Your task to perform on an android device: Is it going to rain this weekend? Image 0: 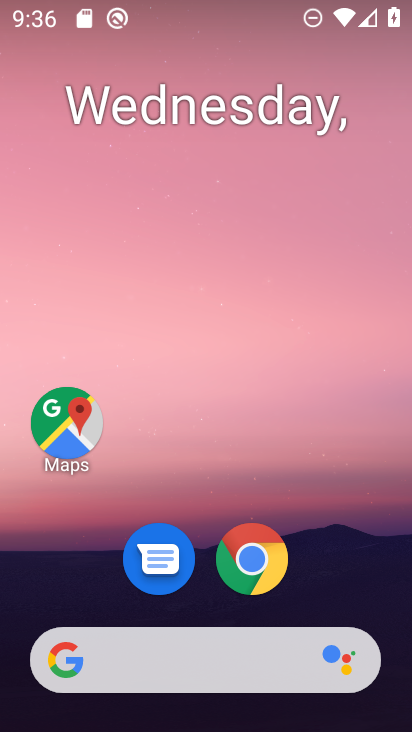
Step 0: click (230, 650)
Your task to perform on an android device: Is it going to rain this weekend? Image 1: 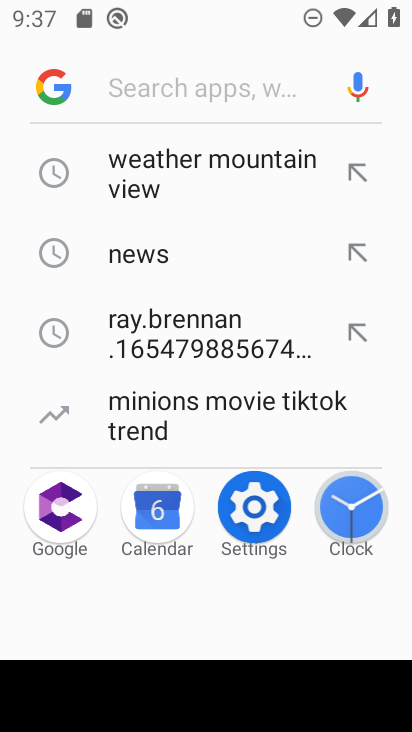
Step 1: type "weather "
Your task to perform on an android device: Is it going to rain this weekend? Image 2: 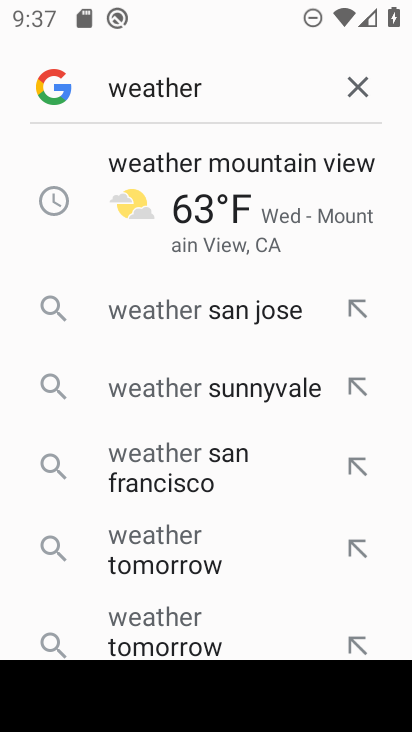
Step 2: drag from (280, 532) to (285, 308)
Your task to perform on an android device: Is it going to rain this weekend? Image 3: 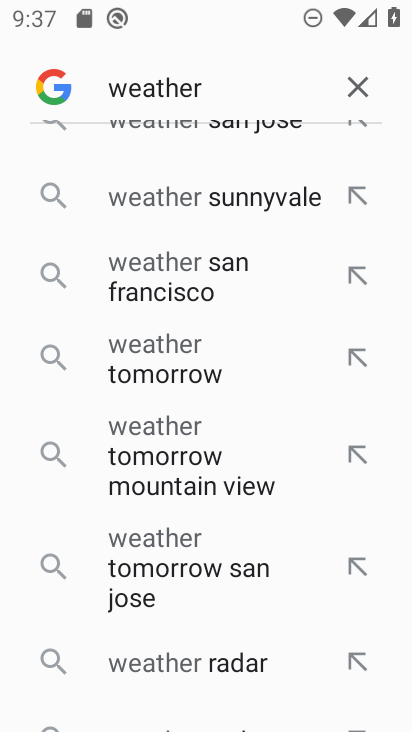
Step 3: drag from (253, 251) to (254, 491)
Your task to perform on an android device: Is it going to rain this weekend? Image 4: 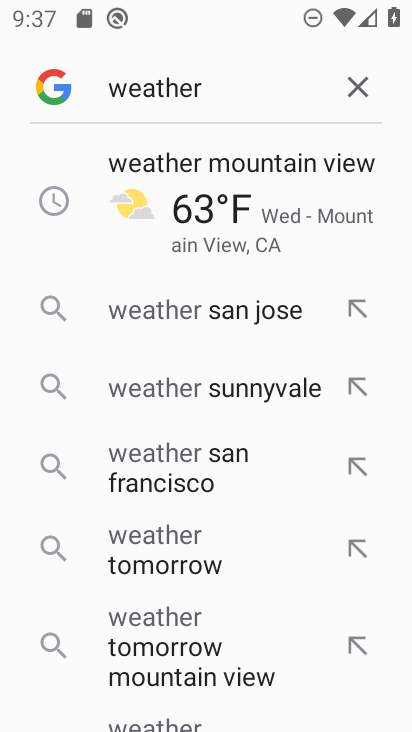
Step 4: click (184, 161)
Your task to perform on an android device: Is it going to rain this weekend? Image 5: 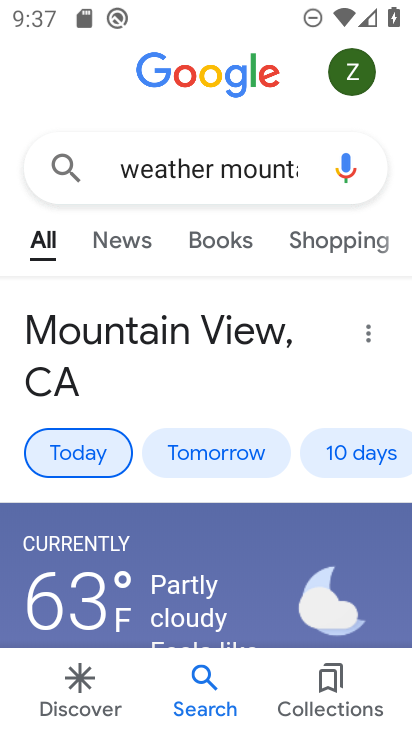
Step 5: click (342, 448)
Your task to perform on an android device: Is it going to rain this weekend? Image 6: 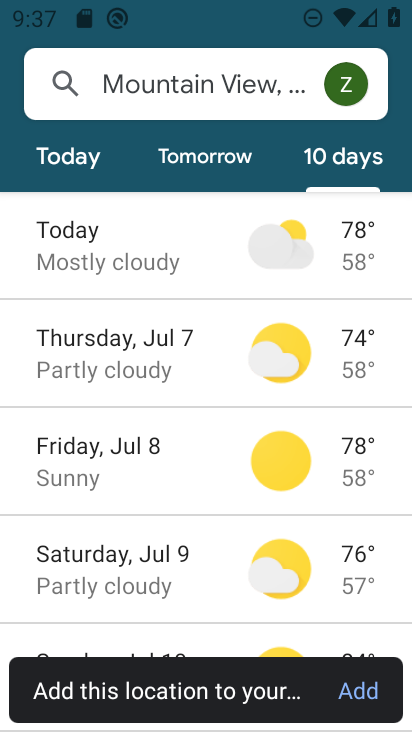
Step 6: drag from (275, 542) to (277, 319)
Your task to perform on an android device: Is it going to rain this weekend? Image 7: 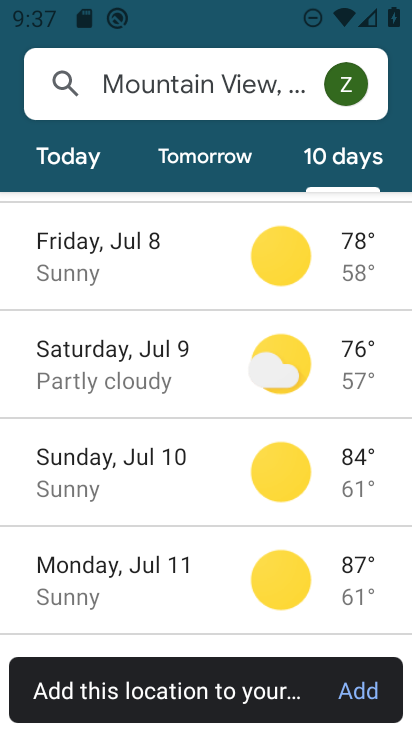
Step 7: click (185, 376)
Your task to perform on an android device: Is it going to rain this weekend? Image 8: 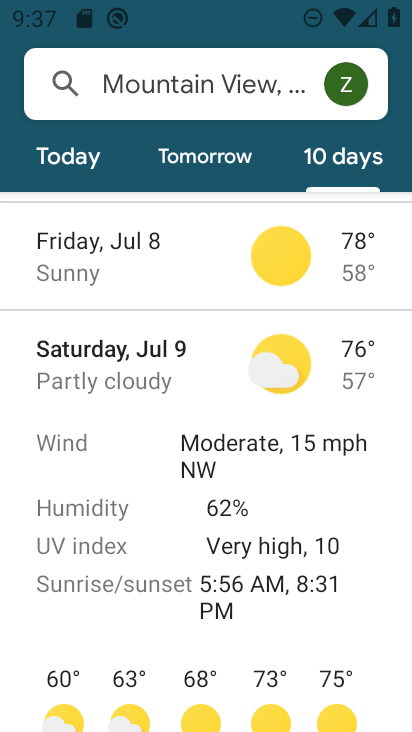
Step 8: task complete